Your task to perform on an android device: toggle data saver in the chrome app Image 0: 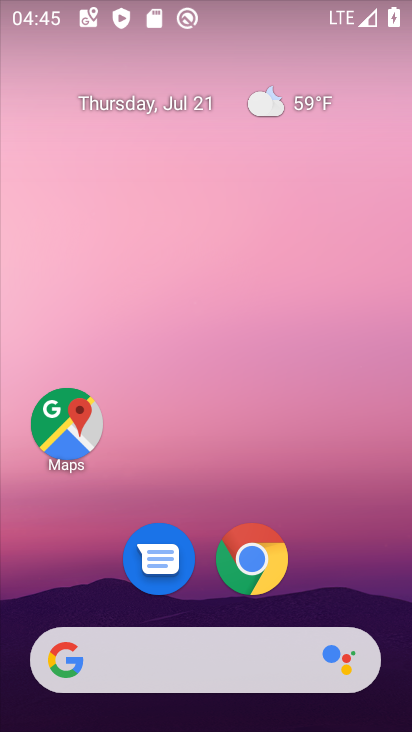
Step 0: click (262, 553)
Your task to perform on an android device: toggle data saver in the chrome app Image 1: 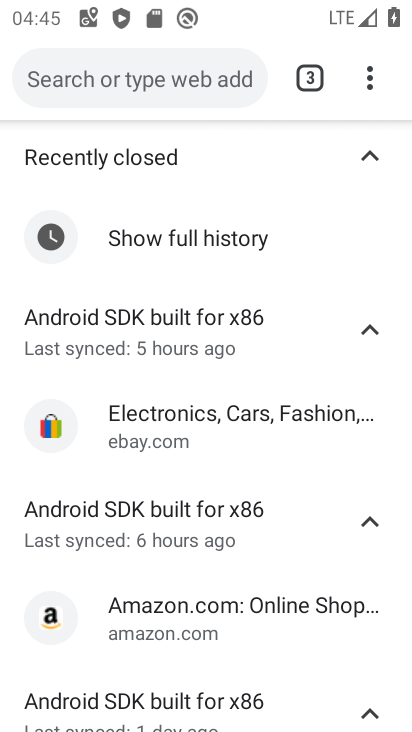
Step 1: drag from (373, 71) to (107, 613)
Your task to perform on an android device: toggle data saver in the chrome app Image 2: 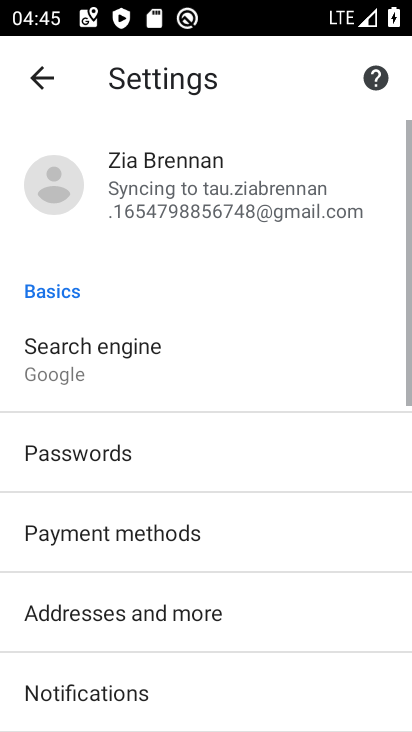
Step 2: drag from (140, 672) to (285, 60)
Your task to perform on an android device: toggle data saver in the chrome app Image 3: 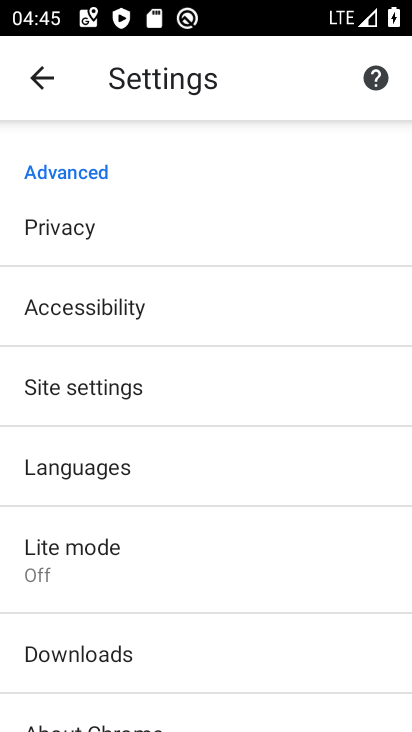
Step 3: click (90, 557)
Your task to perform on an android device: toggle data saver in the chrome app Image 4: 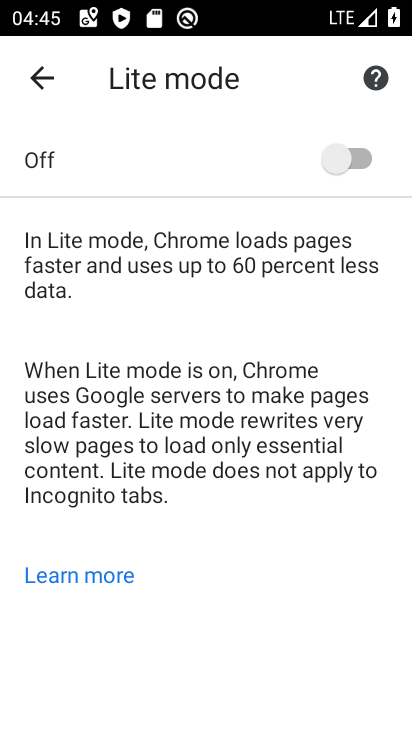
Step 4: click (347, 158)
Your task to perform on an android device: toggle data saver in the chrome app Image 5: 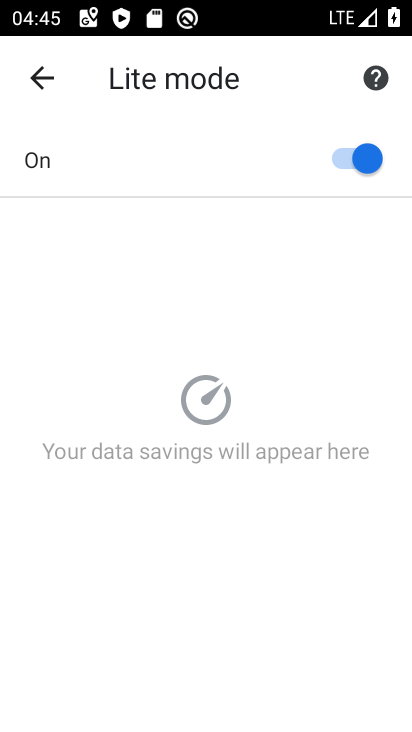
Step 5: task complete